Your task to perform on an android device: Set an alarm for 1pm Image 0: 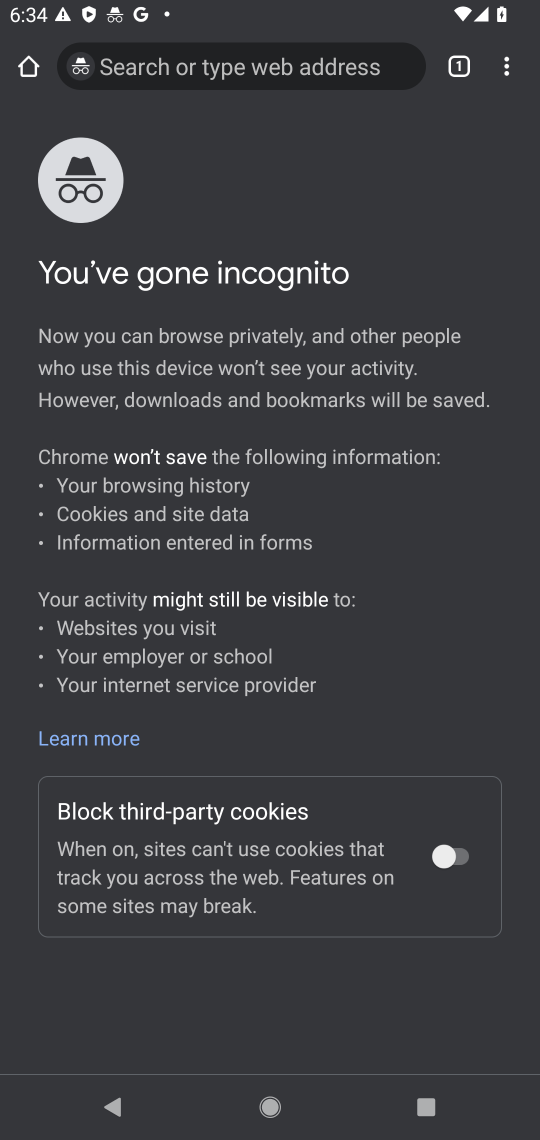
Step 0: press home button
Your task to perform on an android device: Set an alarm for 1pm Image 1: 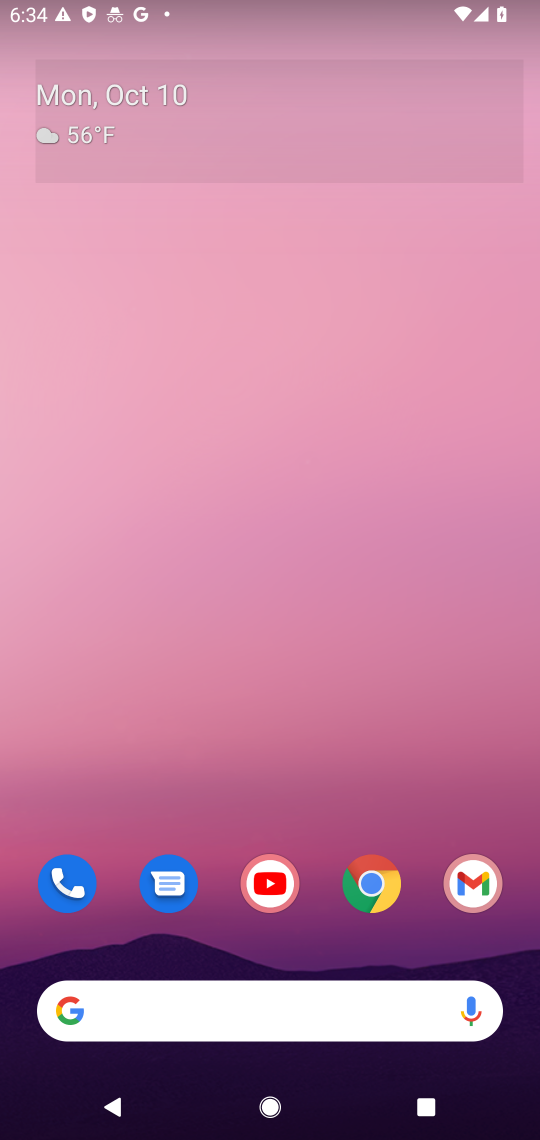
Step 1: drag from (272, 905) to (258, 190)
Your task to perform on an android device: Set an alarm for 1pm Image 2: 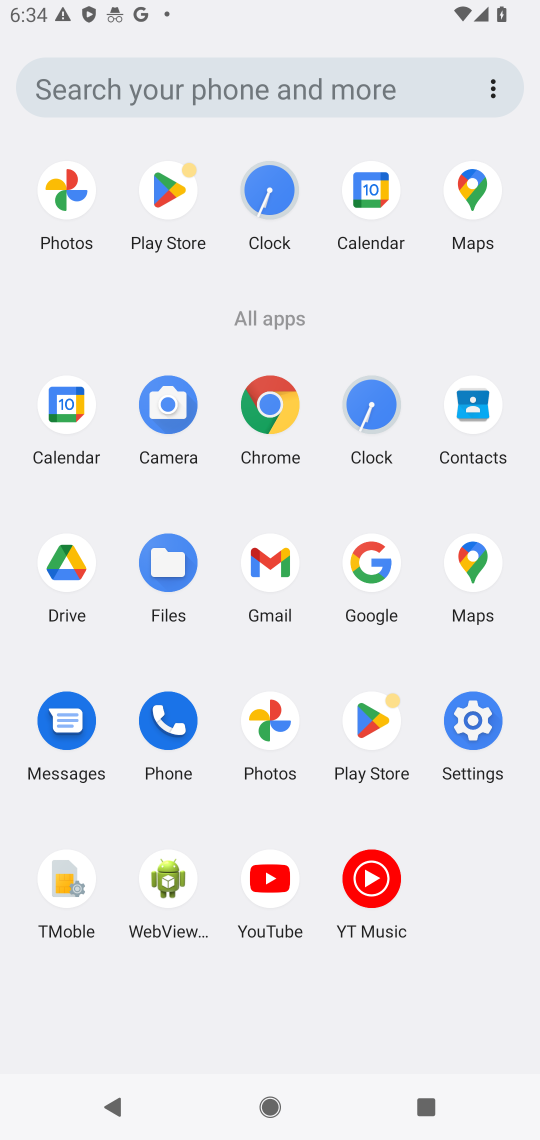
Step 2: click (366, 446)
Your task to perform on an android device: Set an alarm for 1pm Image 3: 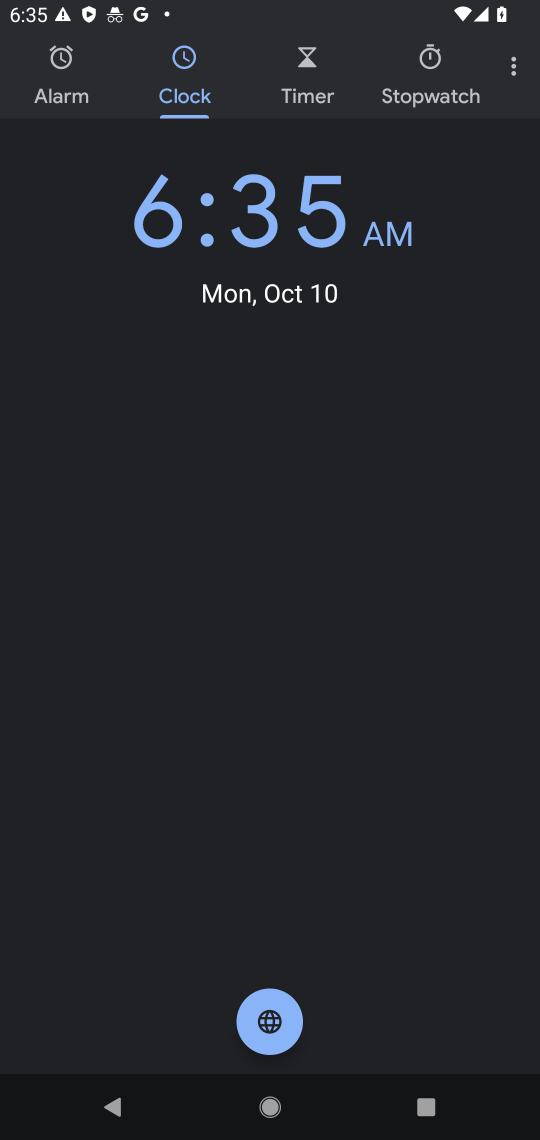
Step 3: click (56, 65)
Your task to perform on an android device: Set an alarm for 1pm Image 4: 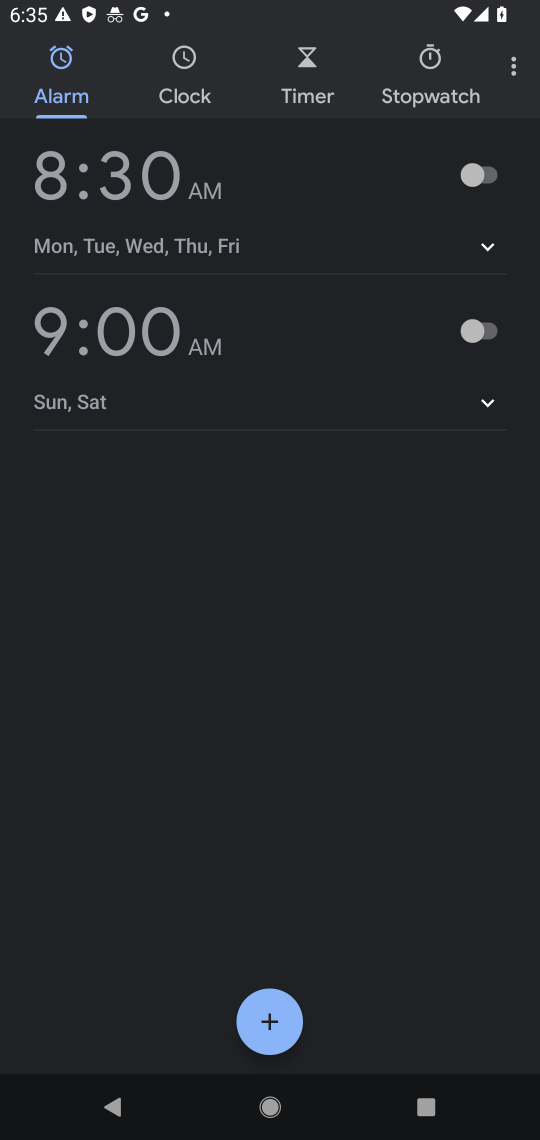
Step 4: click (276, 1018)
Your task to perform on an android device: Set an alarm for 1pm Image 5: 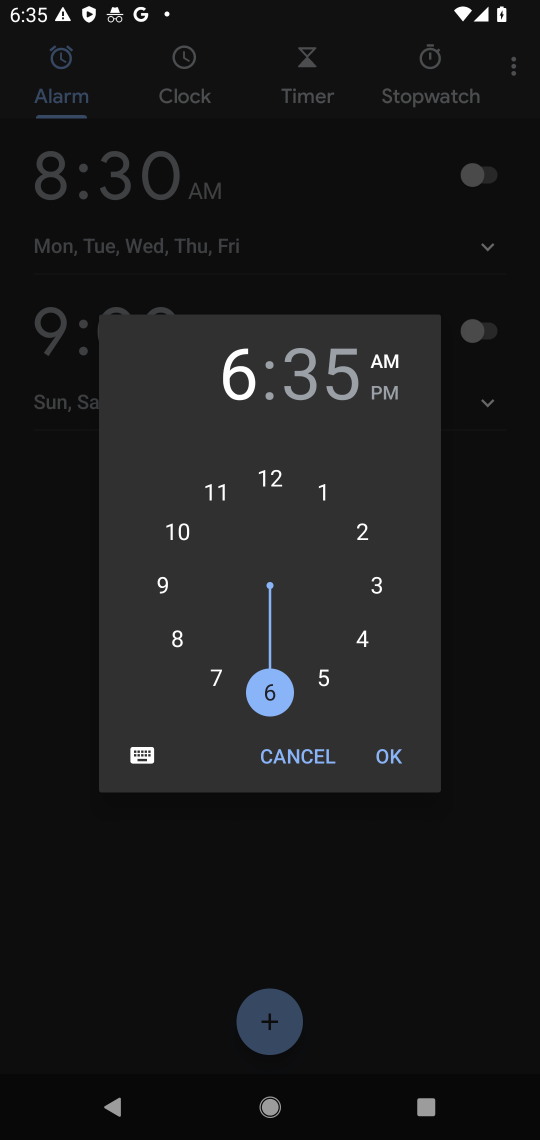
Step 5: click (315, 491)
Your task to perform on an android device: Set an alarm for 1pm Image 6: 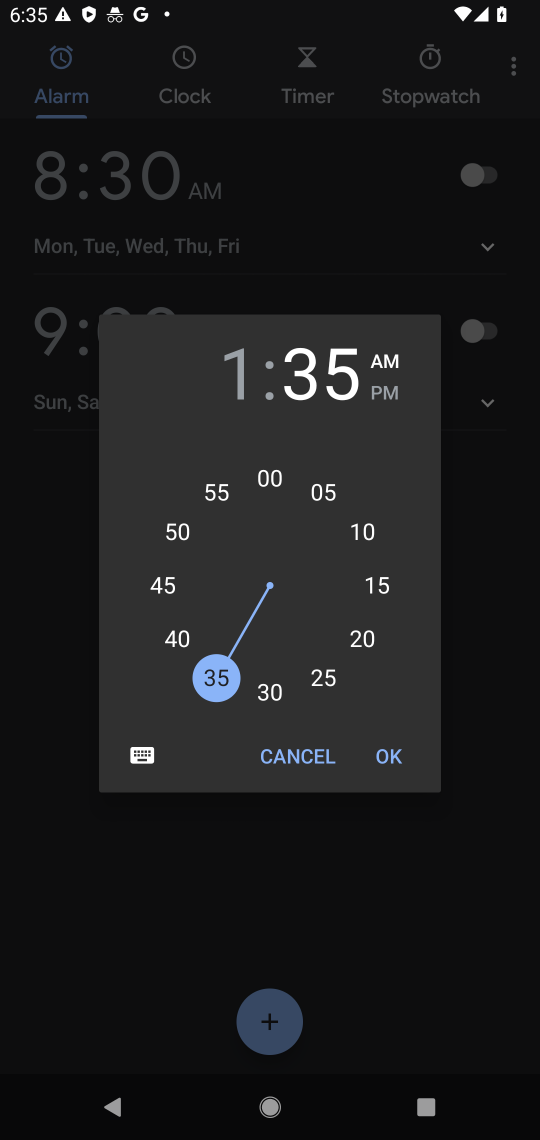
Step 6: click (278, 474)
Your task to perform on an android device: Set an alarm for 1pm Image 7: 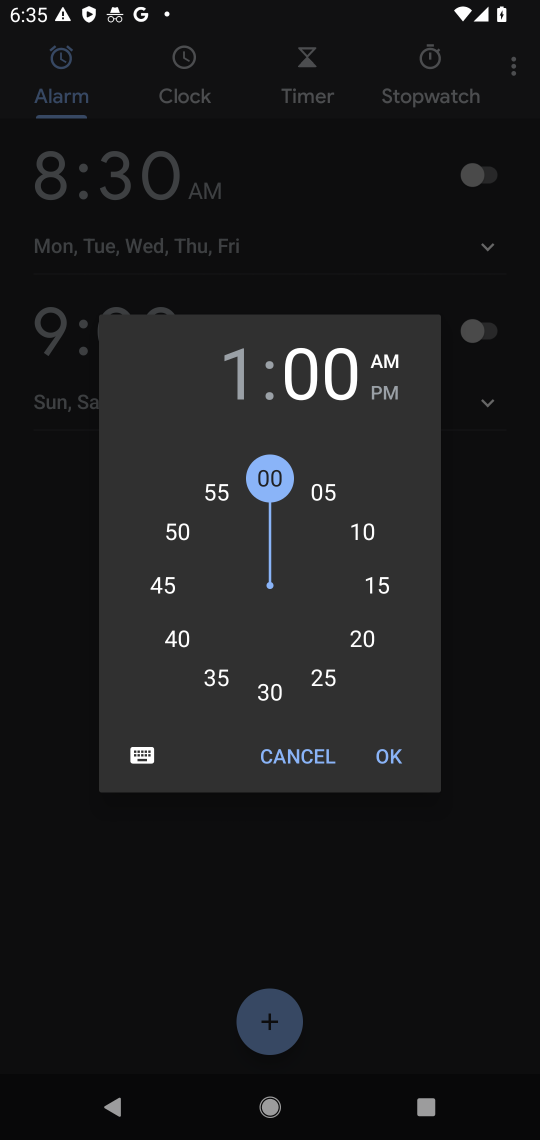
Step 7: click (393, 399)
Your task to perform on an android device: Set an alarm for 1pm Image 8: 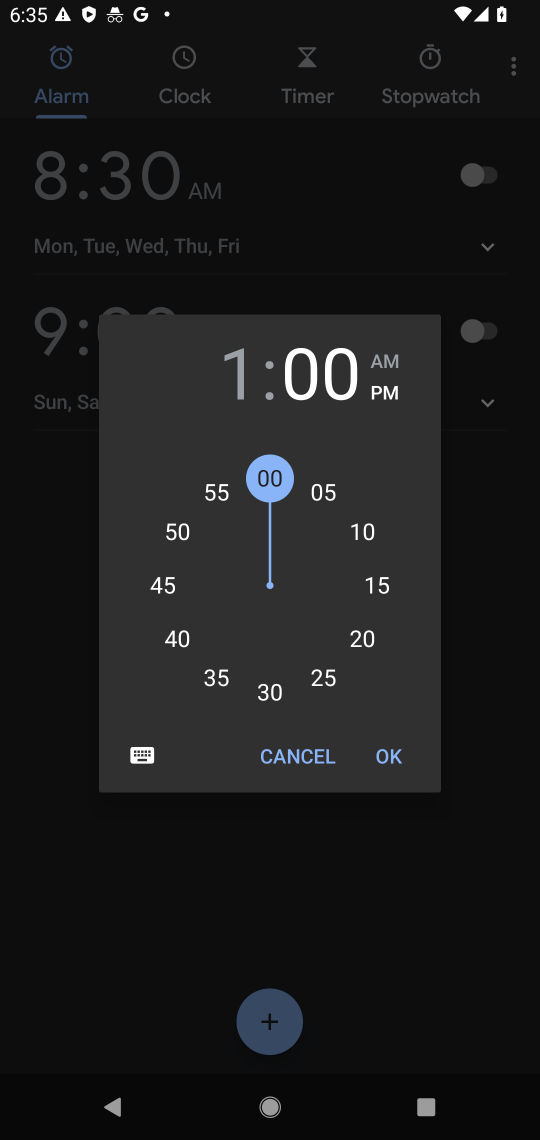
Step 8: click (398, 763)
Your task to perform on an android device: Set an alarm for 1pm Image 9: 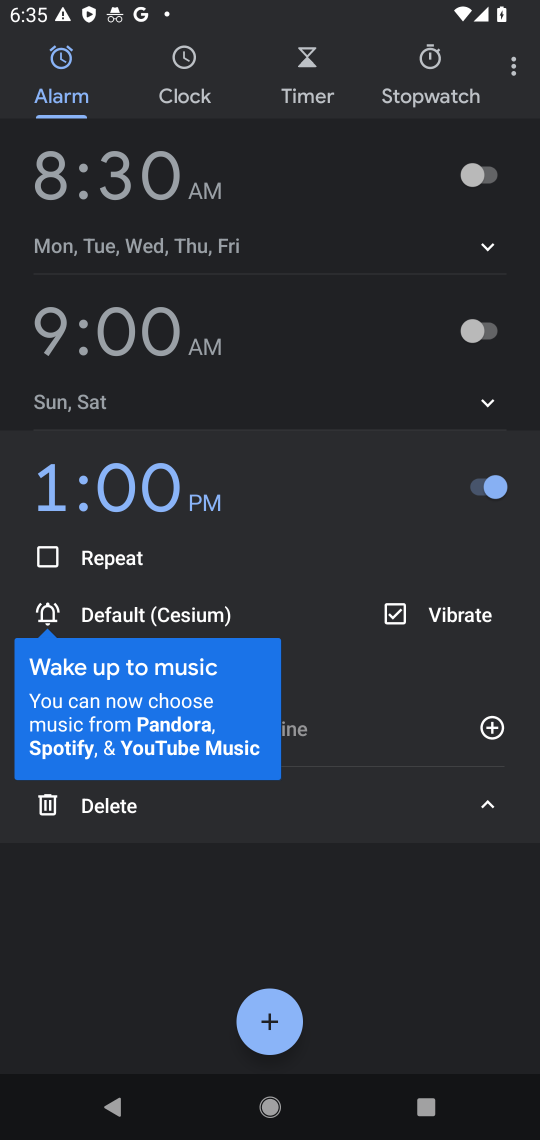
Step 9: task complete